Your task to perform on an android device: Is it going to rain this weekend? Image 0: 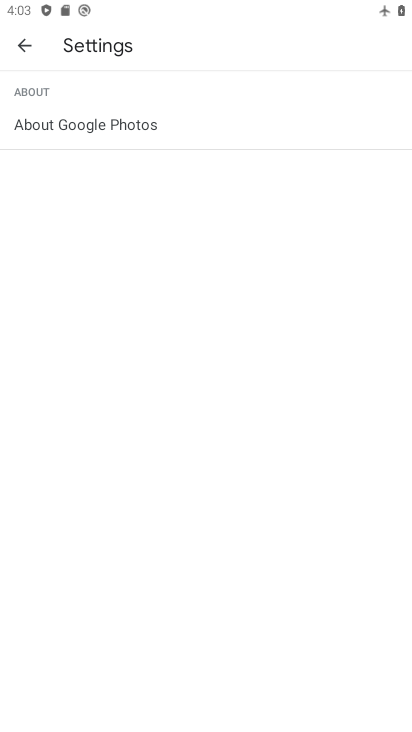
Step 0: press home button
Your task to perform on an android device: Is it going to rain this weekend? Image 1: 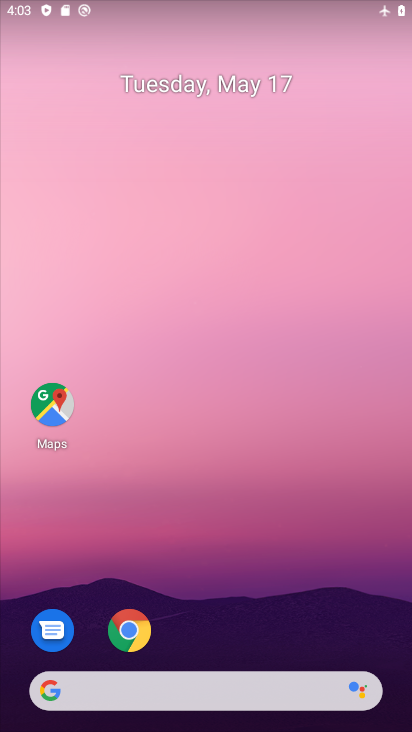
Step 1: drag from (209, 722) to (251, 145)
Your task to perform on an android device: Is it going to rain this weekend? Image 2: 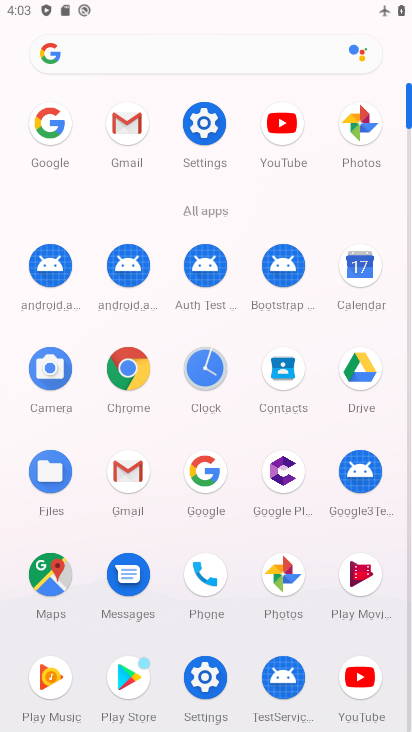
Step 2: click (199, 470)
Your task to perform on an android device: Is it going to rain this weekend? Image 3: 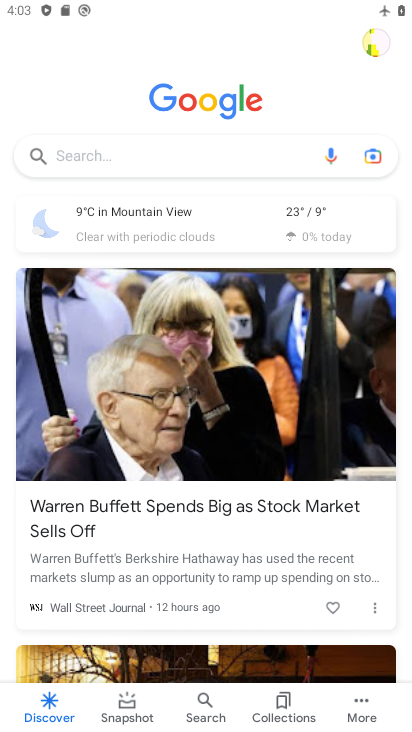
Step 3: click (175, 203)
Your task to perform on an android device: Is it going to rain this weekend? Image 4: 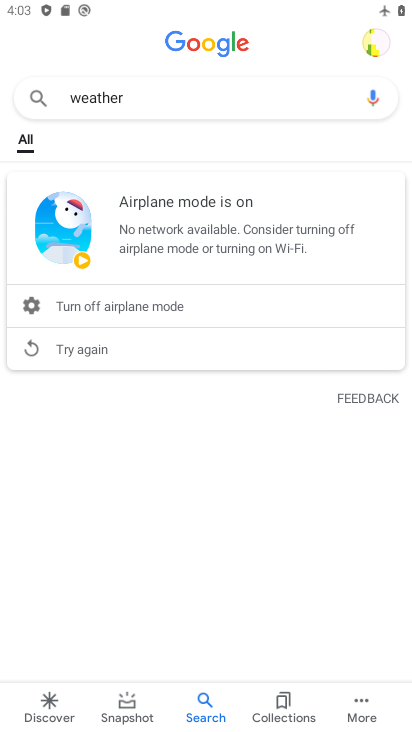
Step 4: task complete